Your task to perform on an android device: change the clock display to digital Image 0: 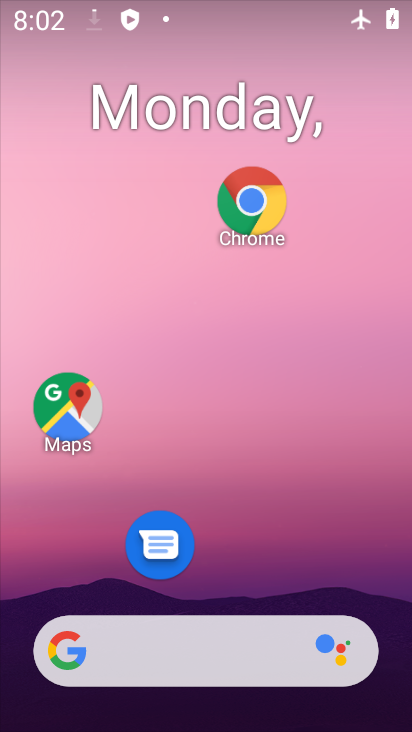
Step 0: drag from (244, 570) to (282, 137)
Your task to perform on an android device: change the clock display to digital Image 1: 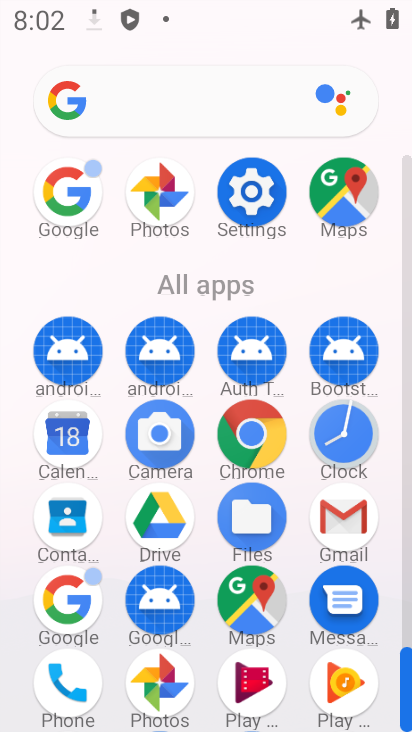
Step 1: click (340, 419)
Your task to perform on an android device: change the clock display to digital Image 2: 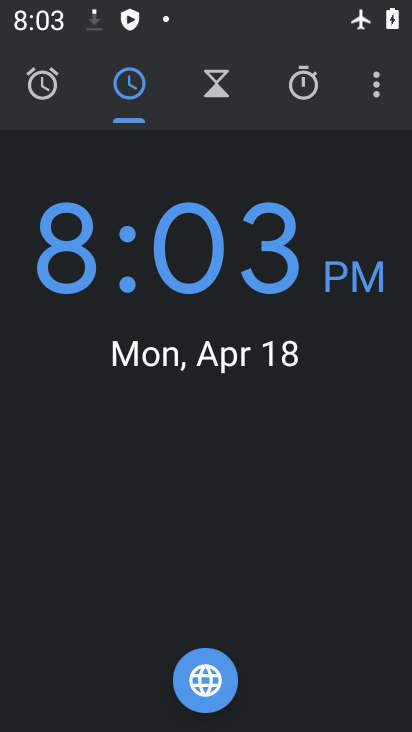
Step 2: click (373, 99)
Your task to perform on an android device: change the clock display to digital Image 3: 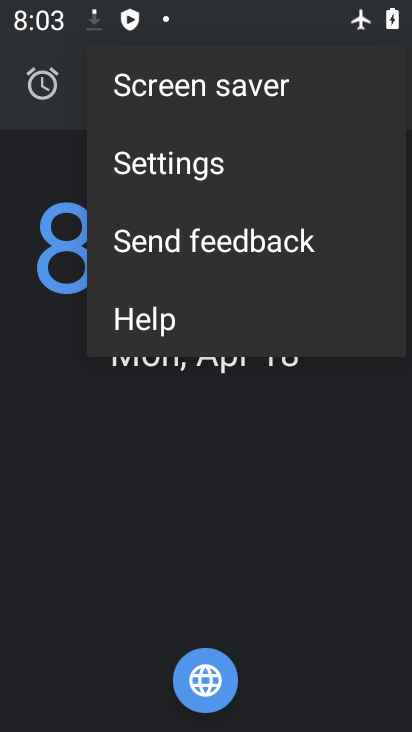
Step 3: click (197, 176)
Your task to perform on an android device: change the clock display to digital Image 4: 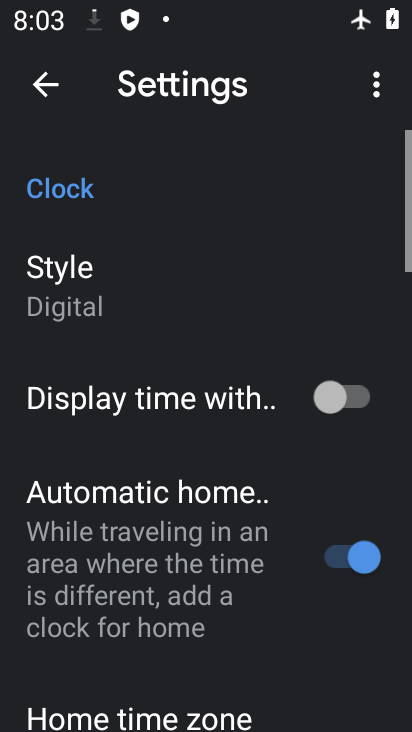
Step 4: click (151, 294)
Your task to perform on an android device: change the clock display to digital Image 5: 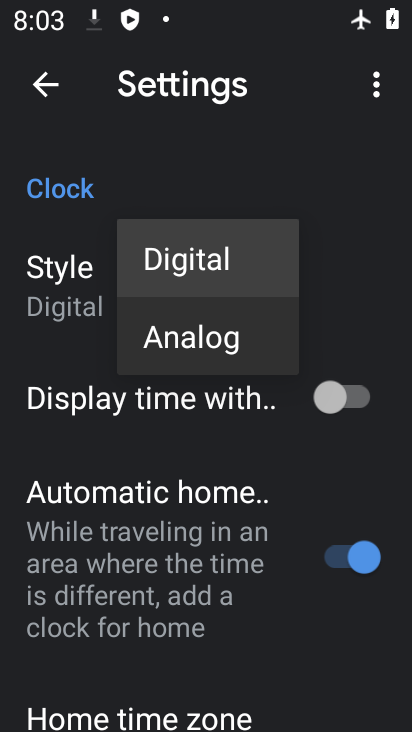
Step 5: task complete